Your task to perform on an android device: Open the calendar and show me this week's events? Image 0: 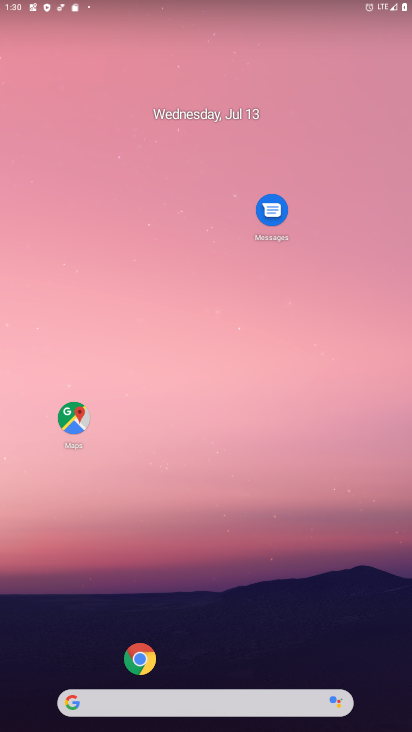
Step 0: drag from (222, 260) to (312, 6)
Your task to perform on an android device: Open the calendar and show me this week's events? Image 1: 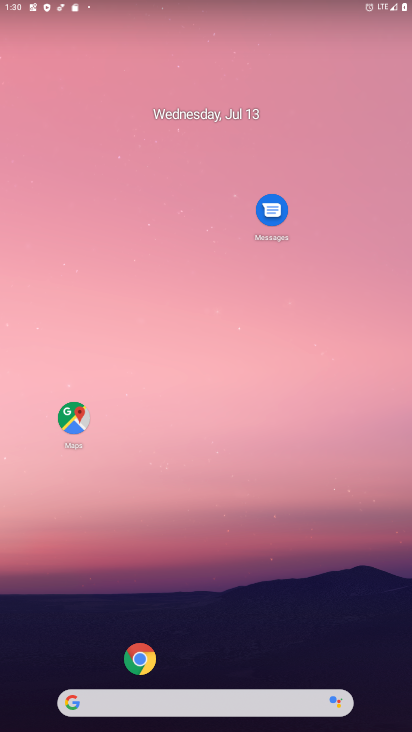
Step 1: drag from (47, 658) to (354, 7)
Your task to perform on an android device: Open the calendar and show me this week's events? Image 2: 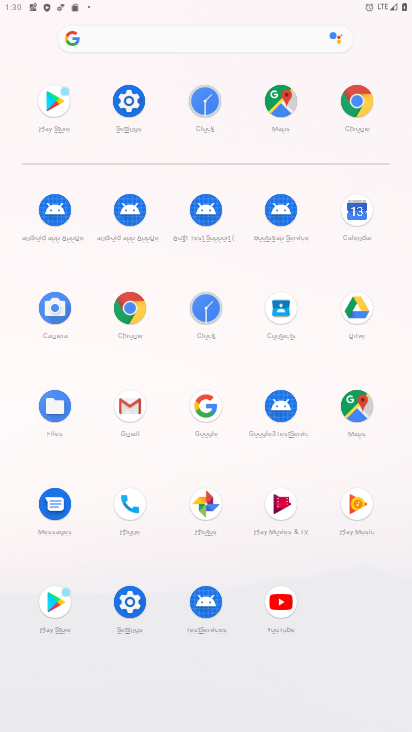
Step 2: click (359, 213)
Your task to perform on an android device: Open the calendar and show me this week's events? Image 3: 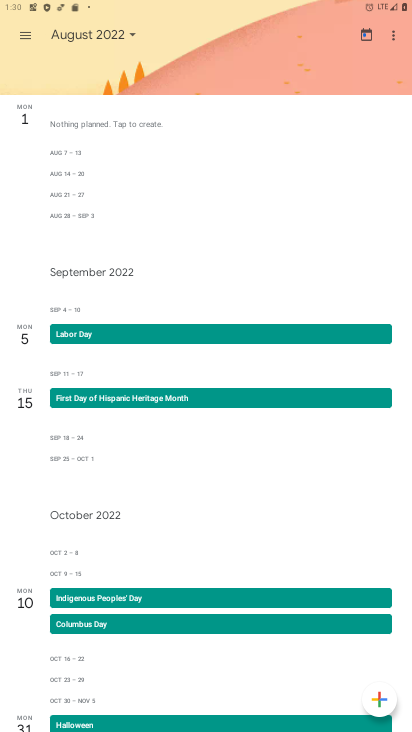
Step 3: task complete